Your task to perform on an android device: See recent photos Image 0: 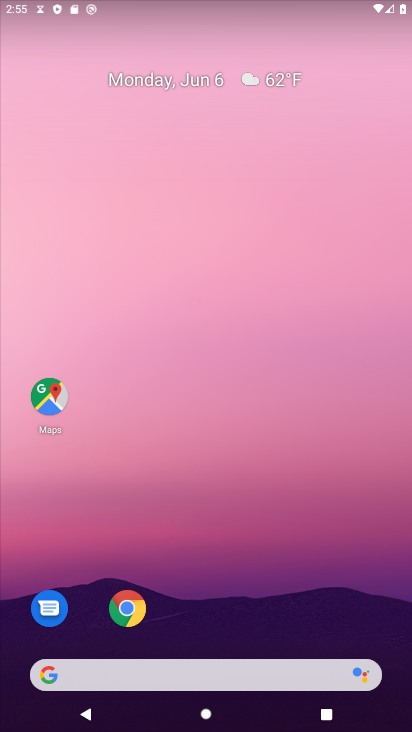
Step 0: drag from (328, 499) to (336, 0)
Your task to perform on an android device: See recent photos Image 1: 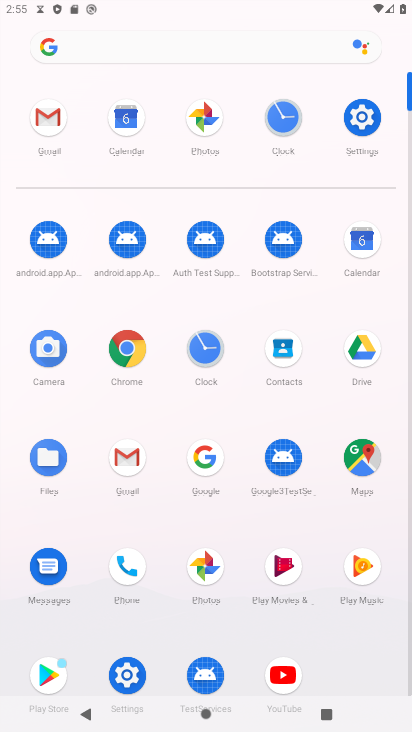
Step 1: click (202, 110)
Your task to perform on an android device: See recent photos Image 2: 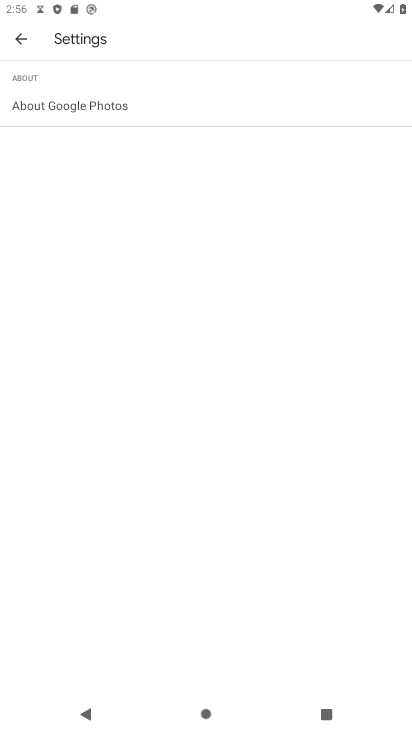
Step 2: click (15, 45)
Your task to perform on an android device: See recent photos Image 3: 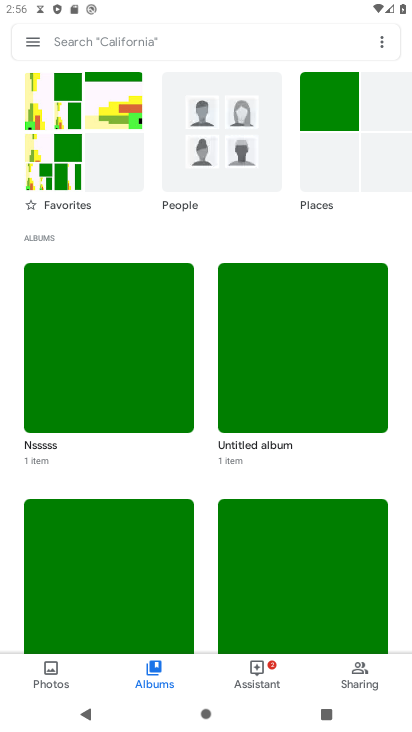
Step 3: click (44, 671)
Your task to perform on an android device: See recent photos Image 4: 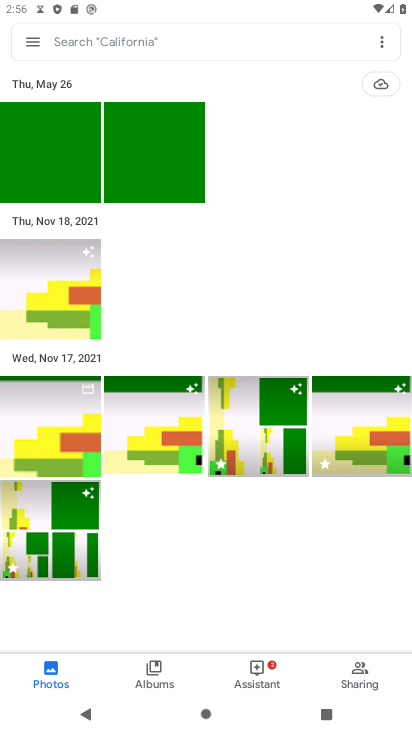
Step 4: task complete